Your task to perform on an android device: Set the phone to "Do not disturb". Image 0: 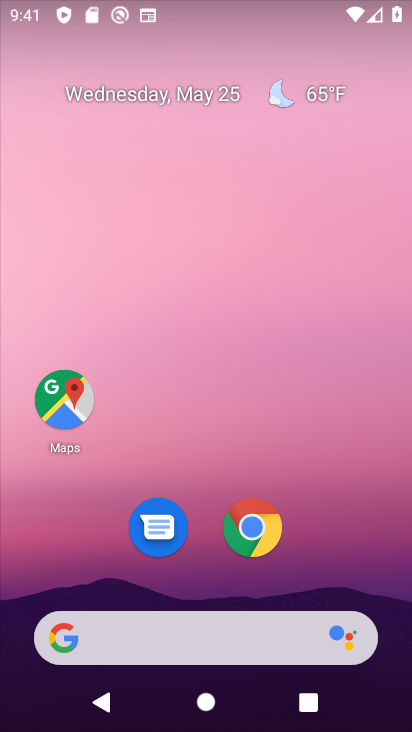
Step 0: drag from (326, 561) to (264, 265)
Your task to perform on an android device: Set the phone to "Do not disturb". Image 1: 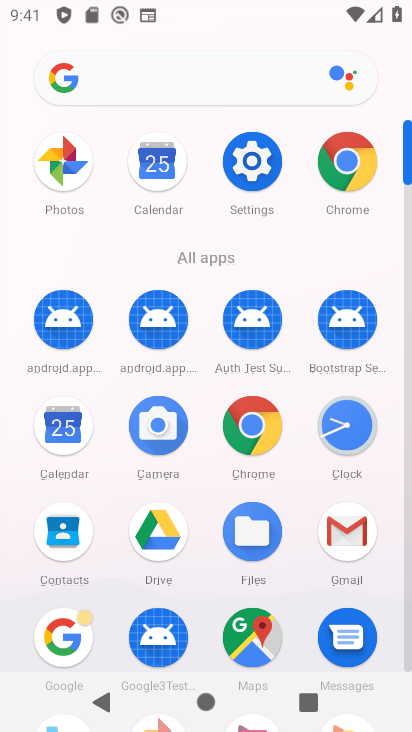
Step 1: click (252, 159)
Your task to perform on an android device: Set the phone to "Do not disturb". Image 2: 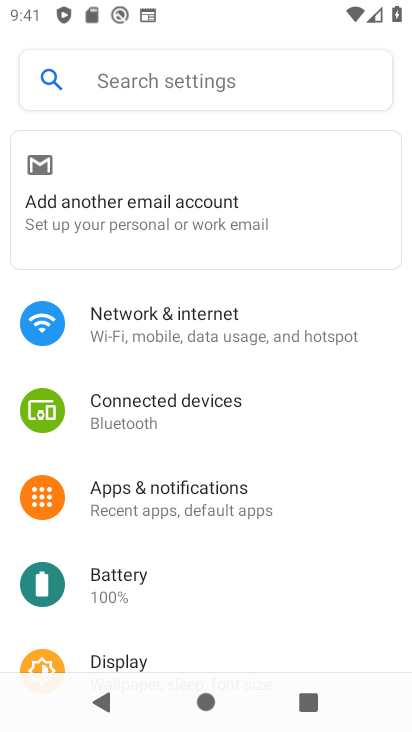
Step 2: drag from (169, 556) to (230, 448)
Your task to perform on an android device: Set the phone to "Do not disturb". Image 3: 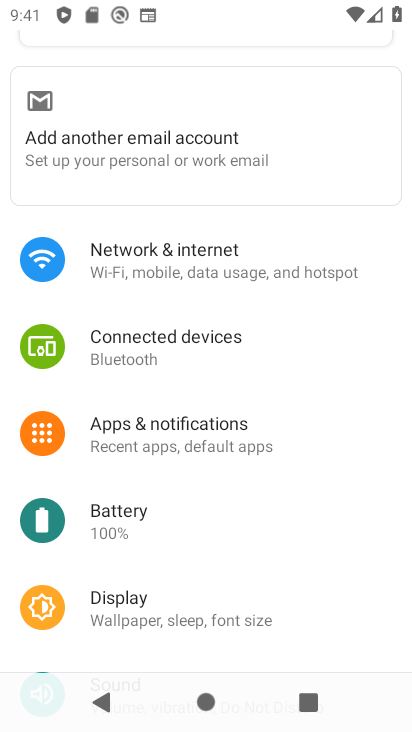
Step 3: drag from (185, 554) to (239, 441)
Your task to perform on an android device: Set the phone to "Do not disturb". Image 4: 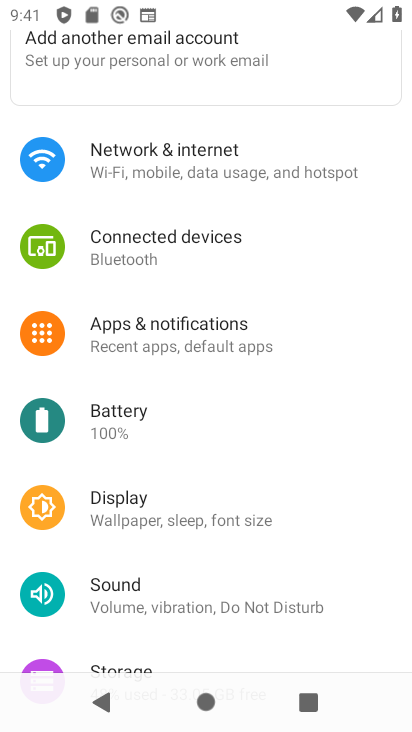
Step 4: click (211, 612)
Your task to perform on an android device: Set the phone to "Do not disturb". Image 5: 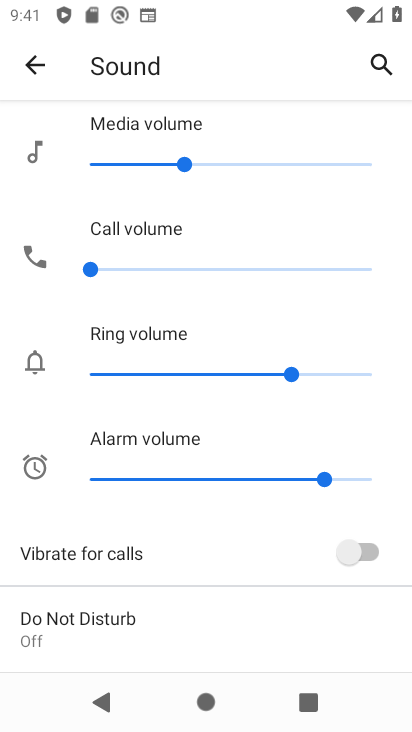
Step 5: click (112, 618)
Your task to perform on an android device: Set the phone to "Do not disturb". Image 6: 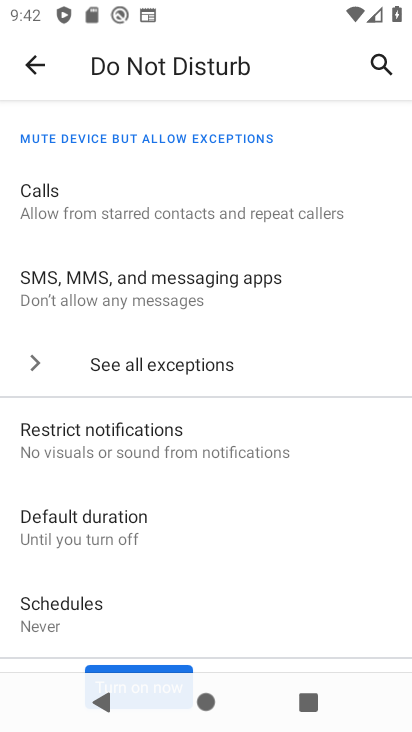
Step 6: drag from (141, 448) to (196, 386)
Your task to perform on an android device: Set the phone to "Do not disturb". Image 7: 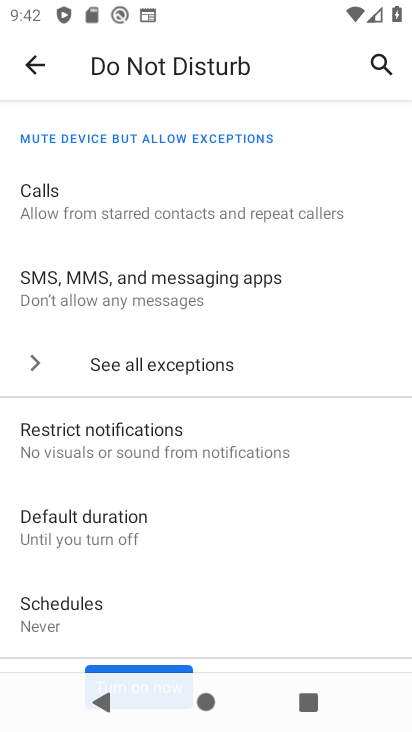
Step 7: drag from (114, 639) to (301, 328)
Your task to perform on an android device: Set the phone to "Do not disturb". Image 8: 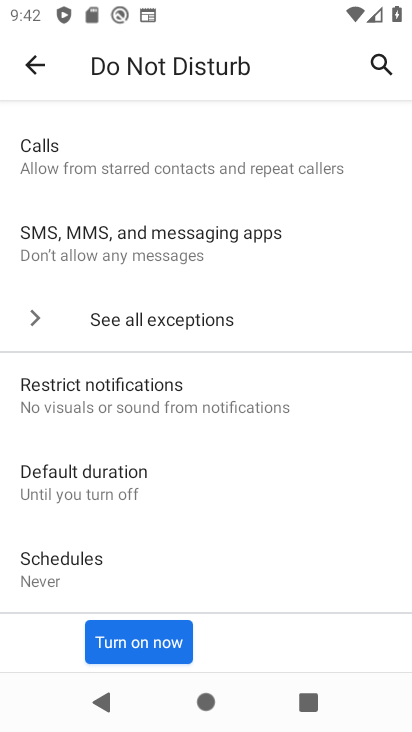
Step 8: click (148, 646)
Your task to perform on an android device: Set the phone to "Do not disturb". Image 9: 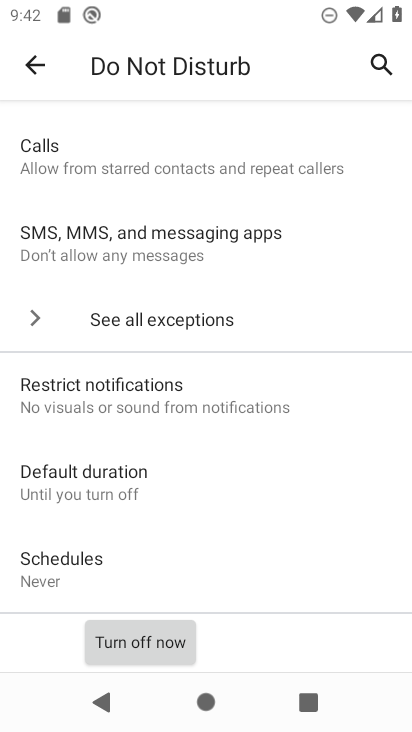
Step 9: task complete